Your task to perform on an android device: read, delete, or share a saved page in the chrome app Image 0: 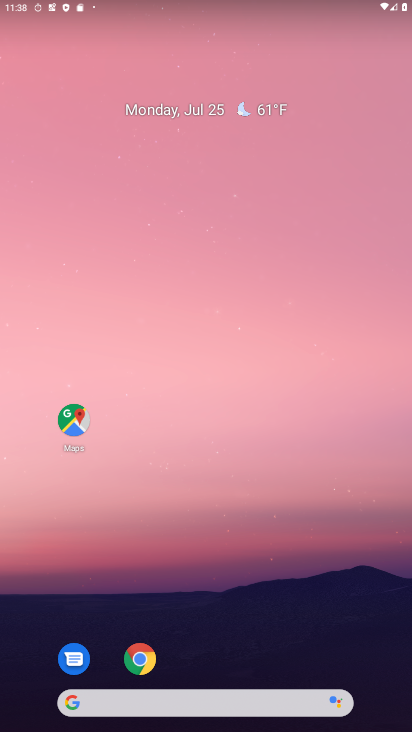
Step 0: click (124, 663)
Your task to perform on an android device: read, delete, or share a saved page in the chrome app Image 1: 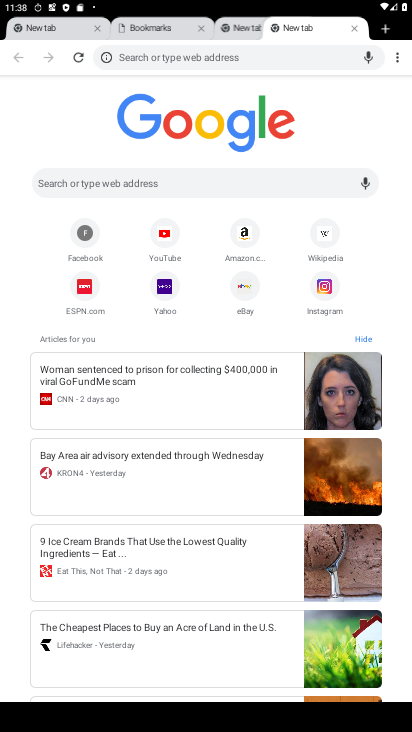
Step 1: click (395, 57)
Your task to perform on an android device: read, delete, or share a saved page in the chrome app Image 2: 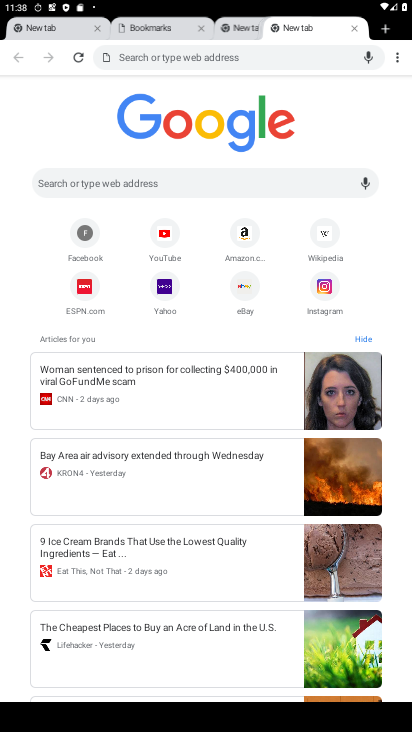
Step 2: click (394, 47)
Your task to perform on an android device: read, delete, or share a saved page in the chrome app Image 3: 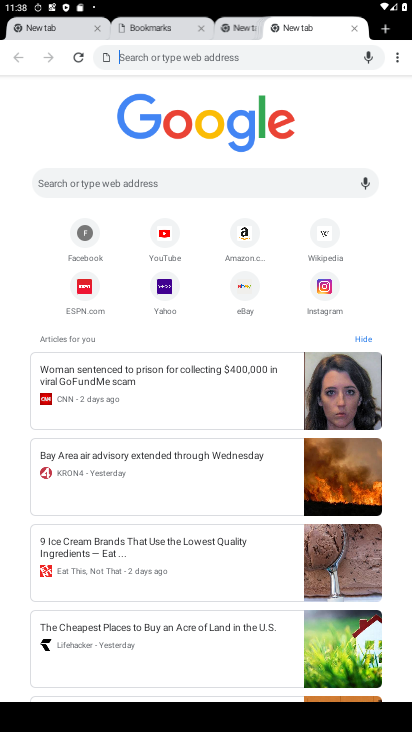
Step 3: task complete